Your task to perform on an android device: Search for pizza restaurants on Maps Image 0: 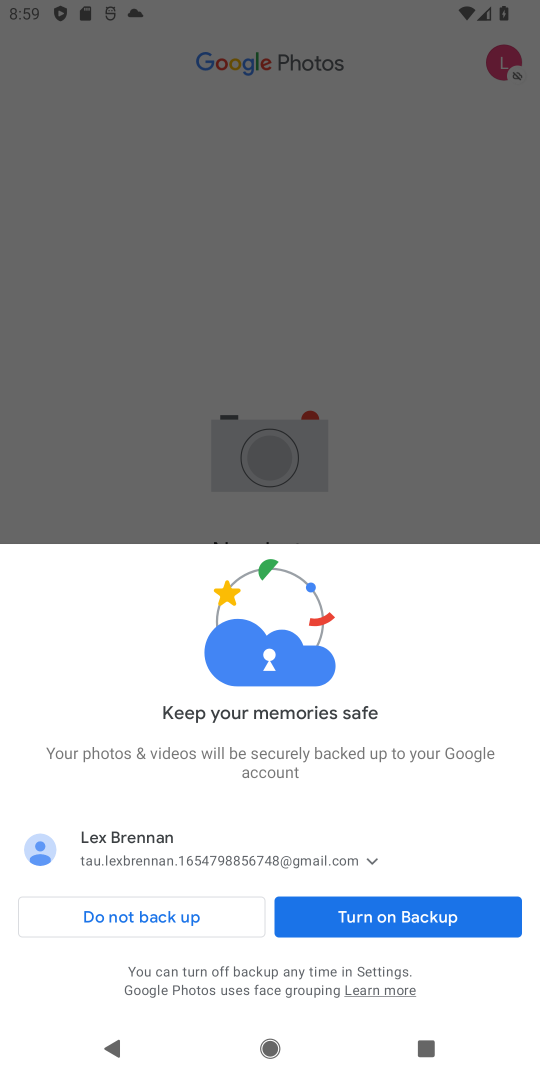
Step 0: press back button
Your task to perform on an android device: Search for pizza restaurants on Maps Image 1: 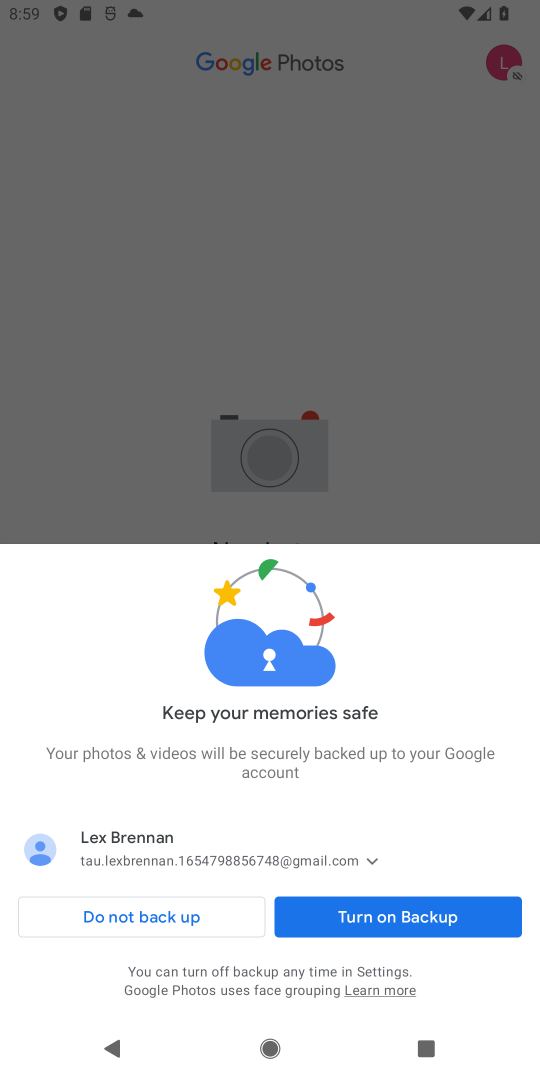
Step 1: press home button
Your task to perform on an android device: Search for pizza restaurants on Maps Image 2: 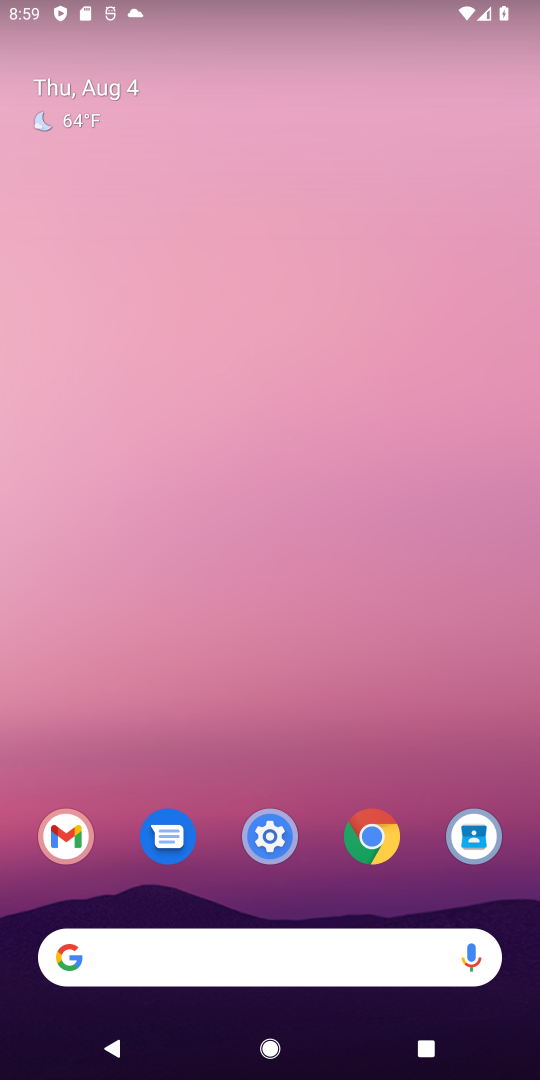
Step 2: drag from (313, 673) to (381, 51)
Your task to perform on an android device: Search for pizza restaurants on Maps Image 3: 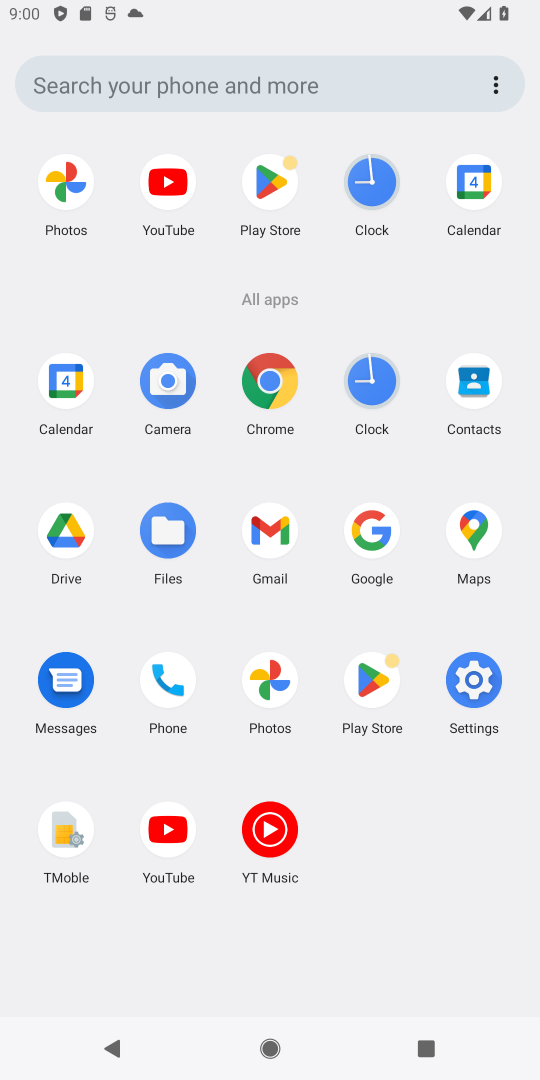
Step 3: click (481, 535)
Your task to perform on an android device: Search for pizza restaurants on Maps Image 4: 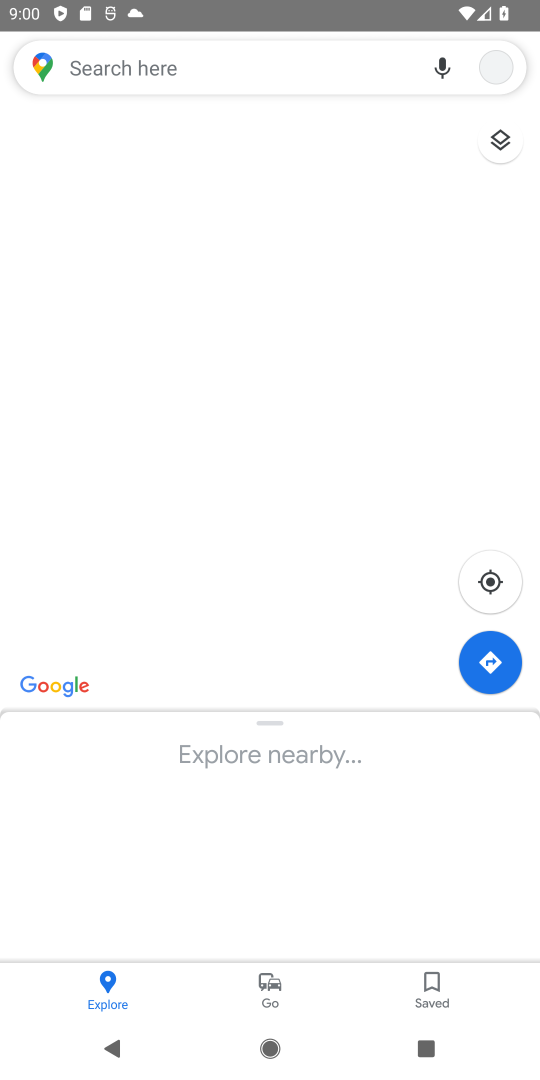
Step 4: click (168, 82)
Your task to perform on an android device: Search for pizza restaurants on Maps Image 5: 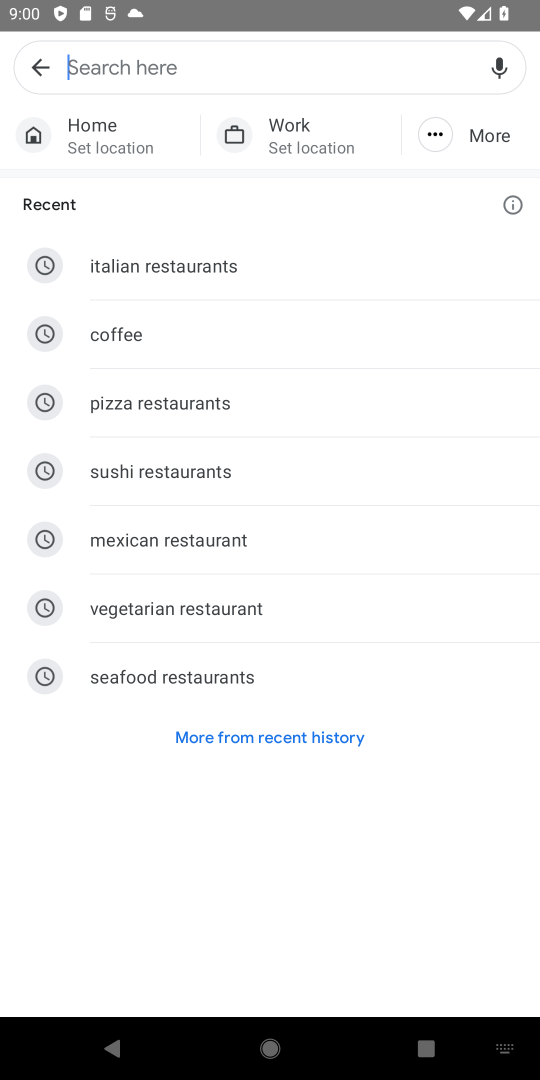
Step 5: type "pizza restaurants"
Your task to perform on an android device: Search for pizza restaurants on Maps Image 6: 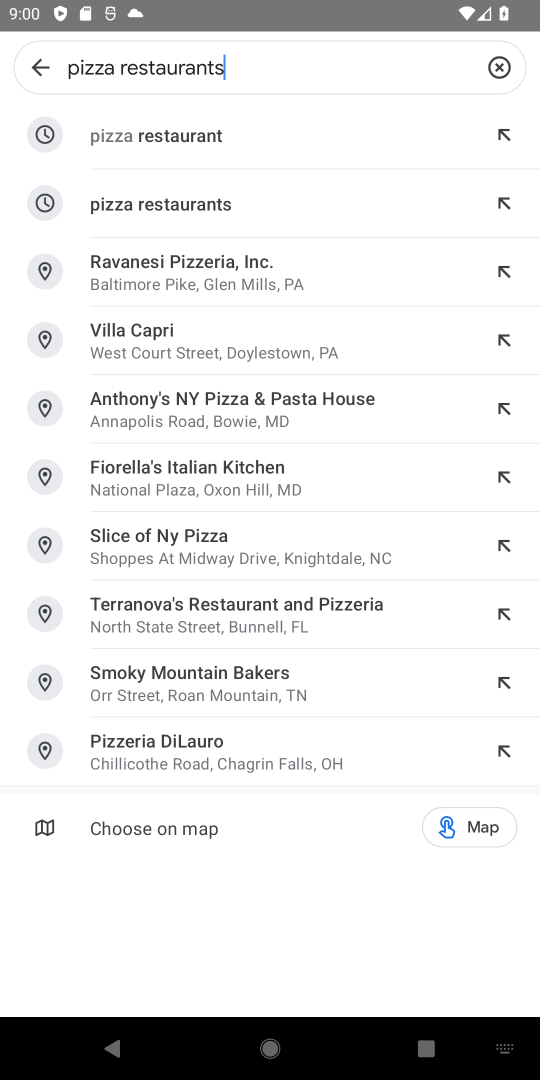
Step 6: click (157, 136)
Your task to perform on an android device: Search for pizza restaurants on Maps Image 7: 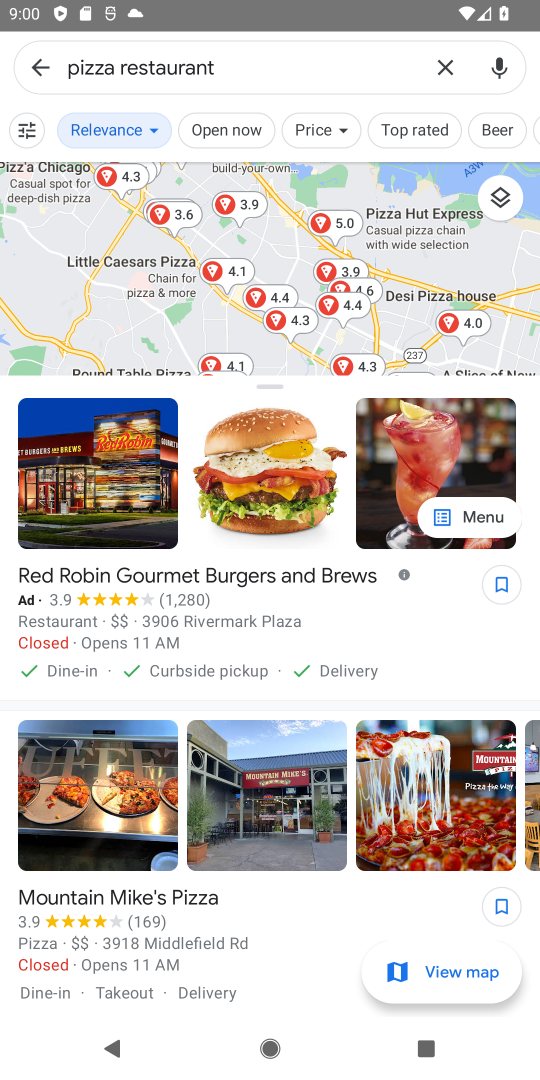
Step 7: task complete